Your task to perform on an android device: manage bookmarks in the chrome app Image 0: 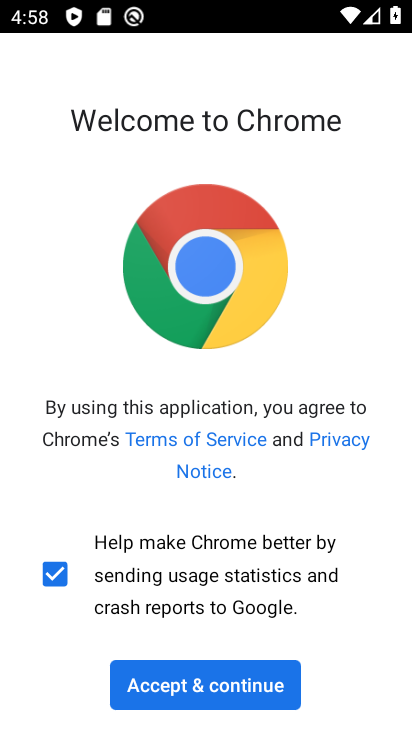
Step 0: press home button
Your task to perform on an android device: manage bookmarks in the chrome app Image 1: 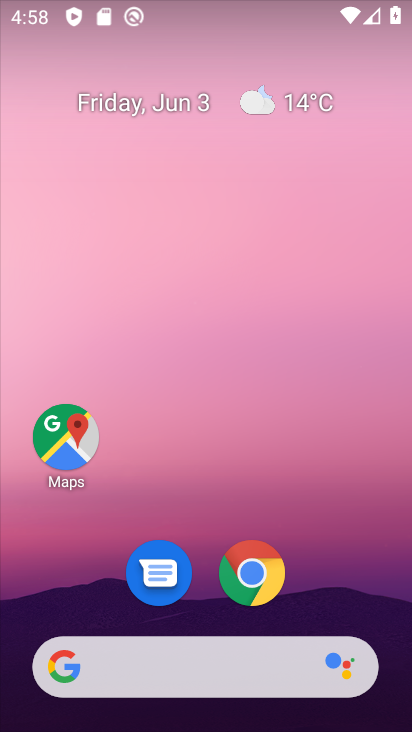
Step 1: click (251, 560)
Your task to perform on an android device: manage bookmarks in the chrome app Image 2: 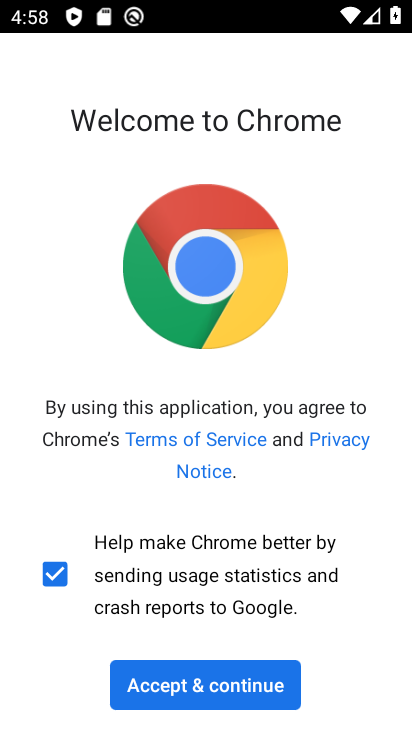
Step 2: click (221, 697)
Your task to perform on an android device: manage bookmarks in the chrome app Image 3: 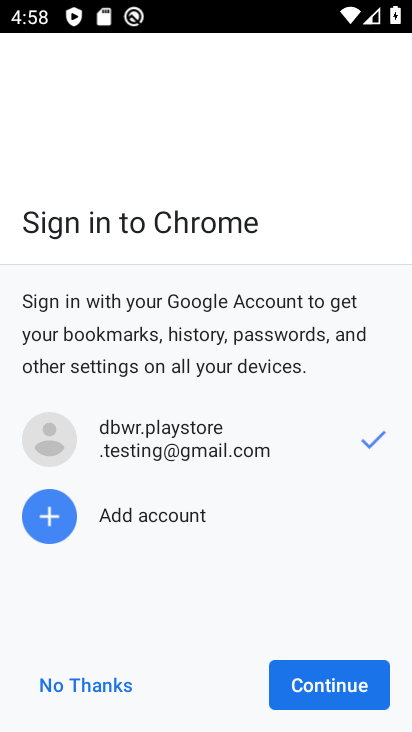
Step 3: click (338, 678)
Your task to perform on an android device: manage bookmarks in the chrome app Image 4: 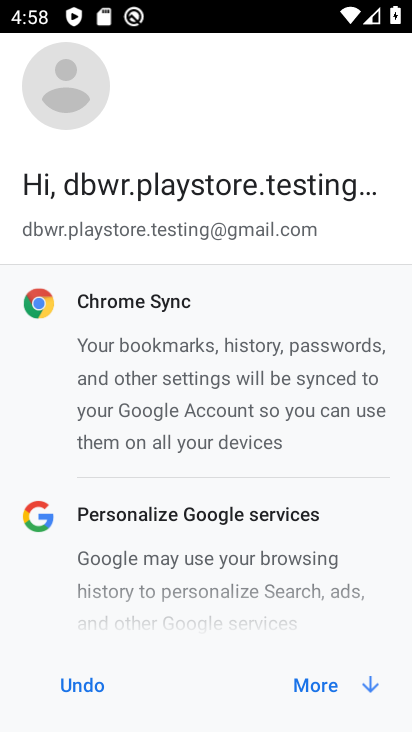
Step 4: click (338, 678)
Your task to perform on an android device: manage bookmarks in the chrome app Image 5: 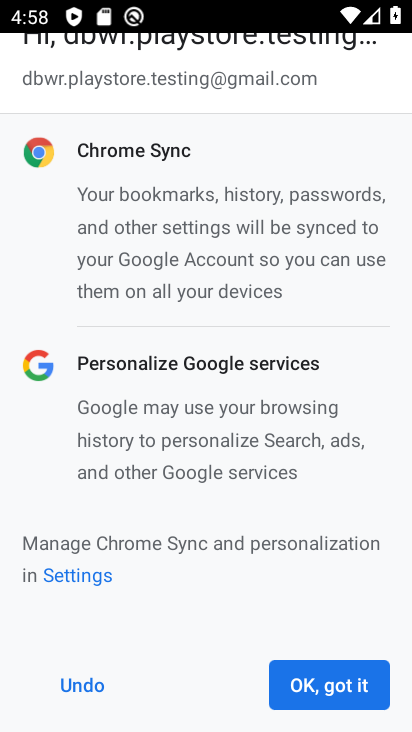
Step 5: click (338, 678)
Your task to perform on an android device: manage bookmarks in the chrome app Image 6: 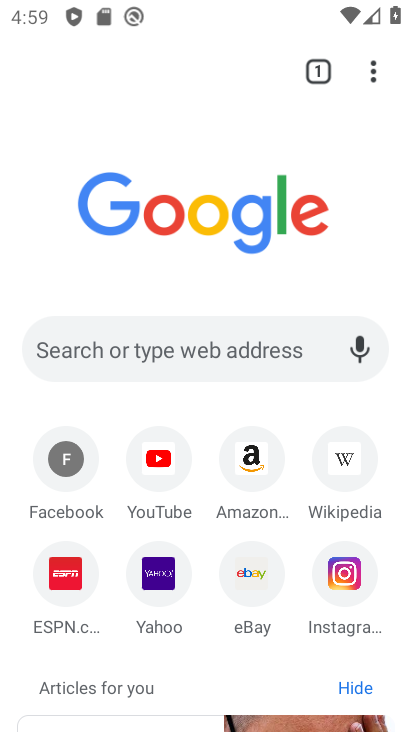
Step 6: click (371, 48)
Your task to perform on an android device: manage bookmarks in the chrome app Image 7: 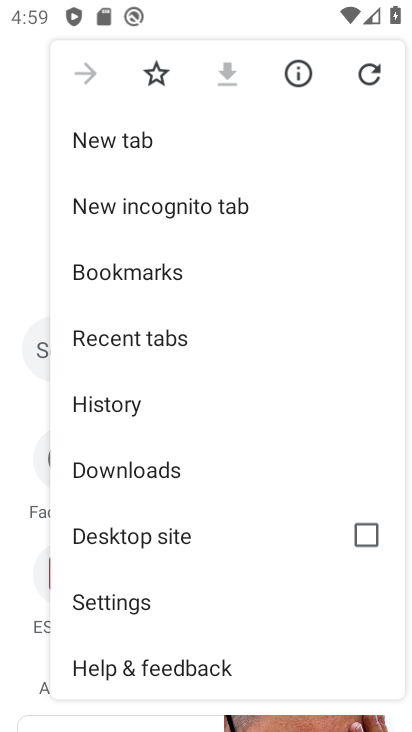
Step 7: drag from (240, 539) to (243, 492)
Your task to perform on an android device: manage bookmarks in the chrome app Image 8: 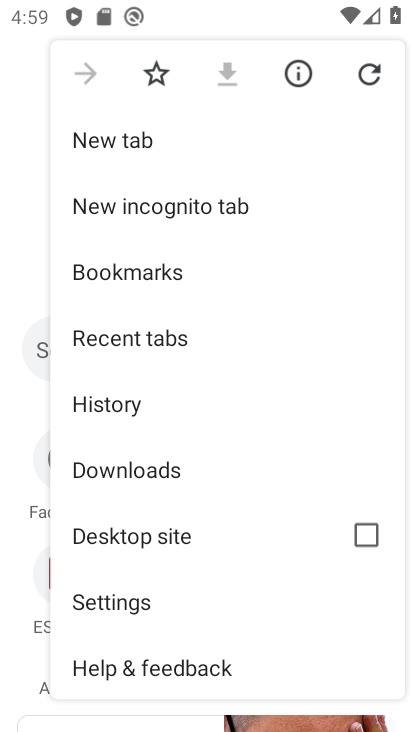
Step 8: click (181, 268)
Your task to perform on an android device: manage bookmarks in the chrome app Image 9: 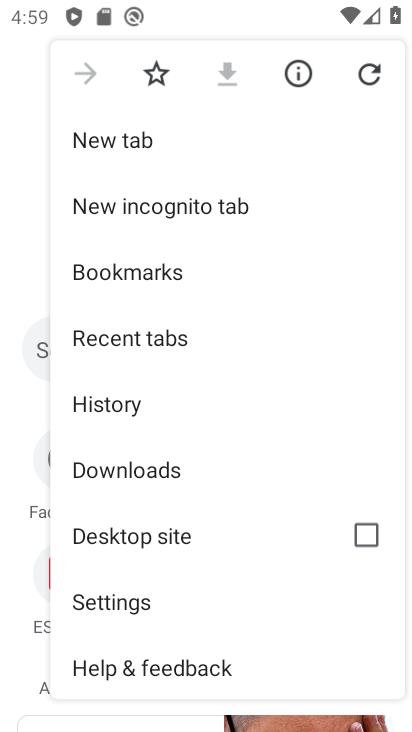
Step 9: click (181, 268)
Your task to perform on an android device: manage bookmarks in the chrome app Image 10: 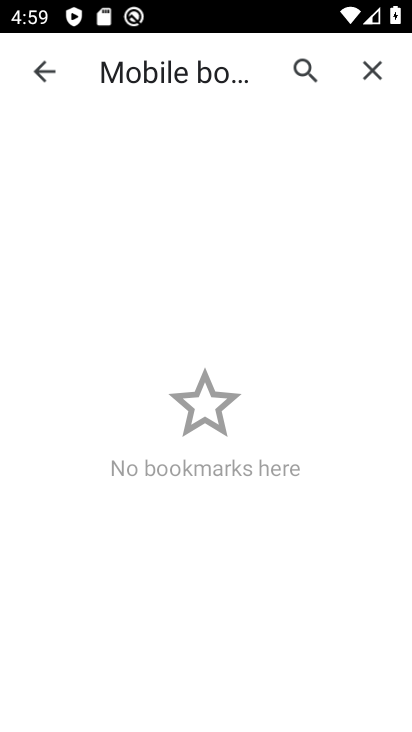
Step 10: task complete